Your task to perform on an android device: Add jbl flip 4 to the cart on ebay.com Image 0: 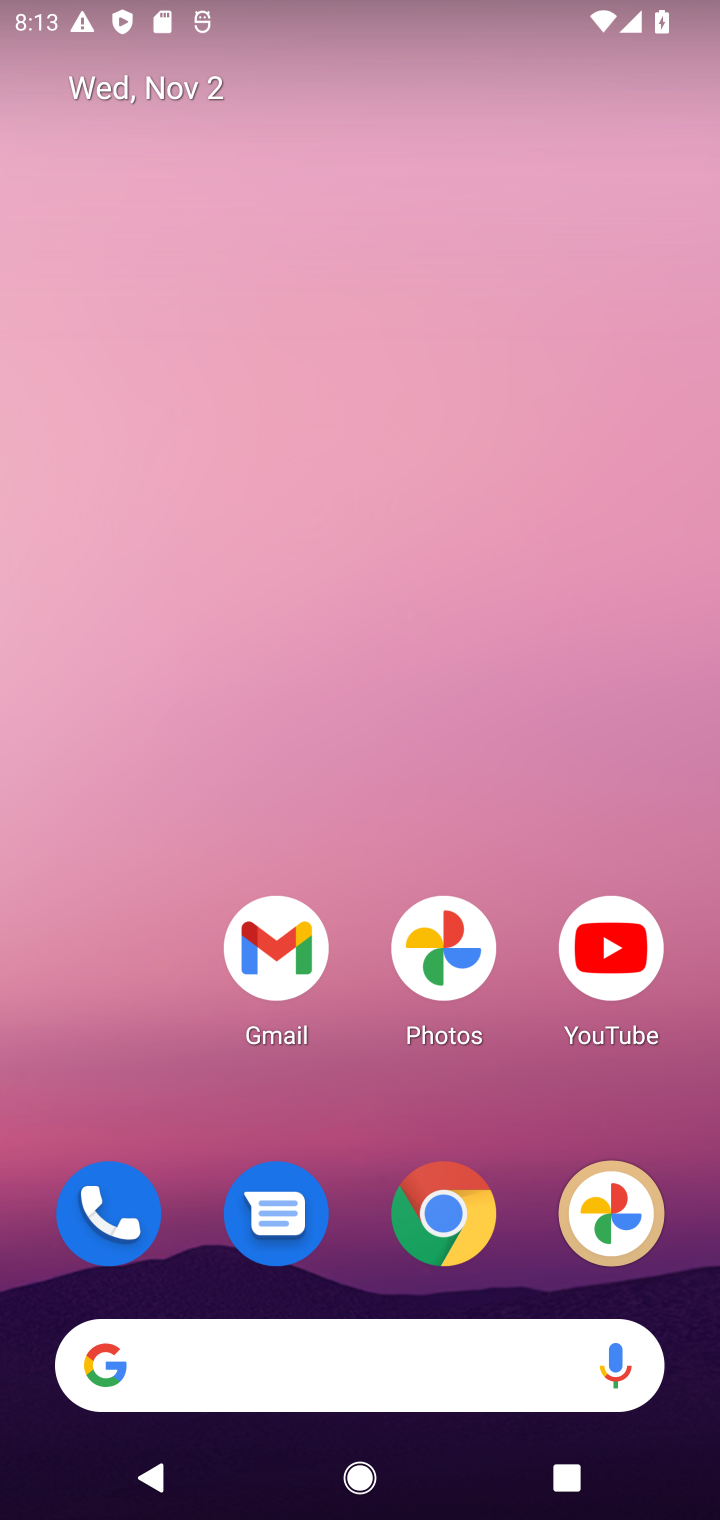
Step 0: click (459, 1227)
Your task to perform on an android device: Add jbl flip 4 to the cart on ebay.com Image 1: 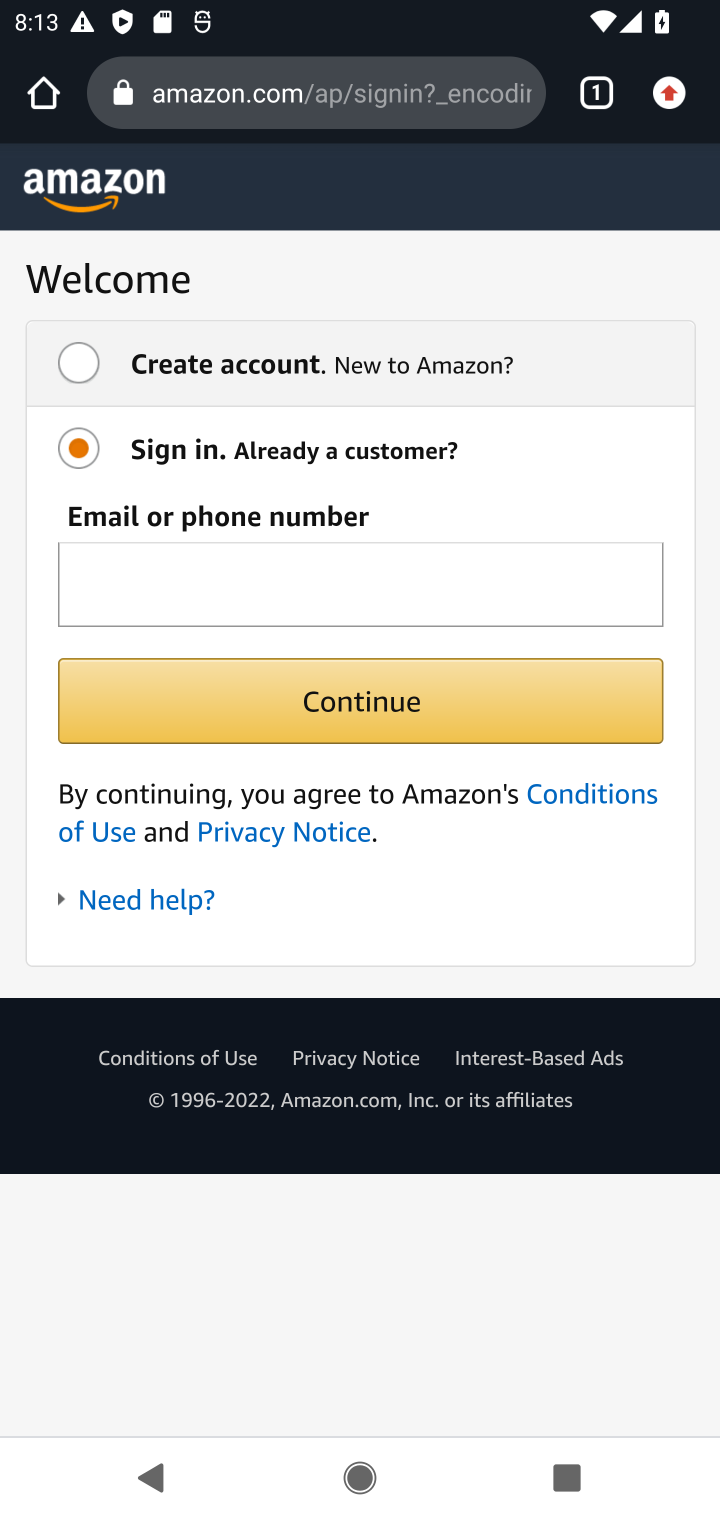
Step 1: click (255, 113)
Your task to perform on an android device: Add jbl flip 4 to the cart on ebay.com Image 2: 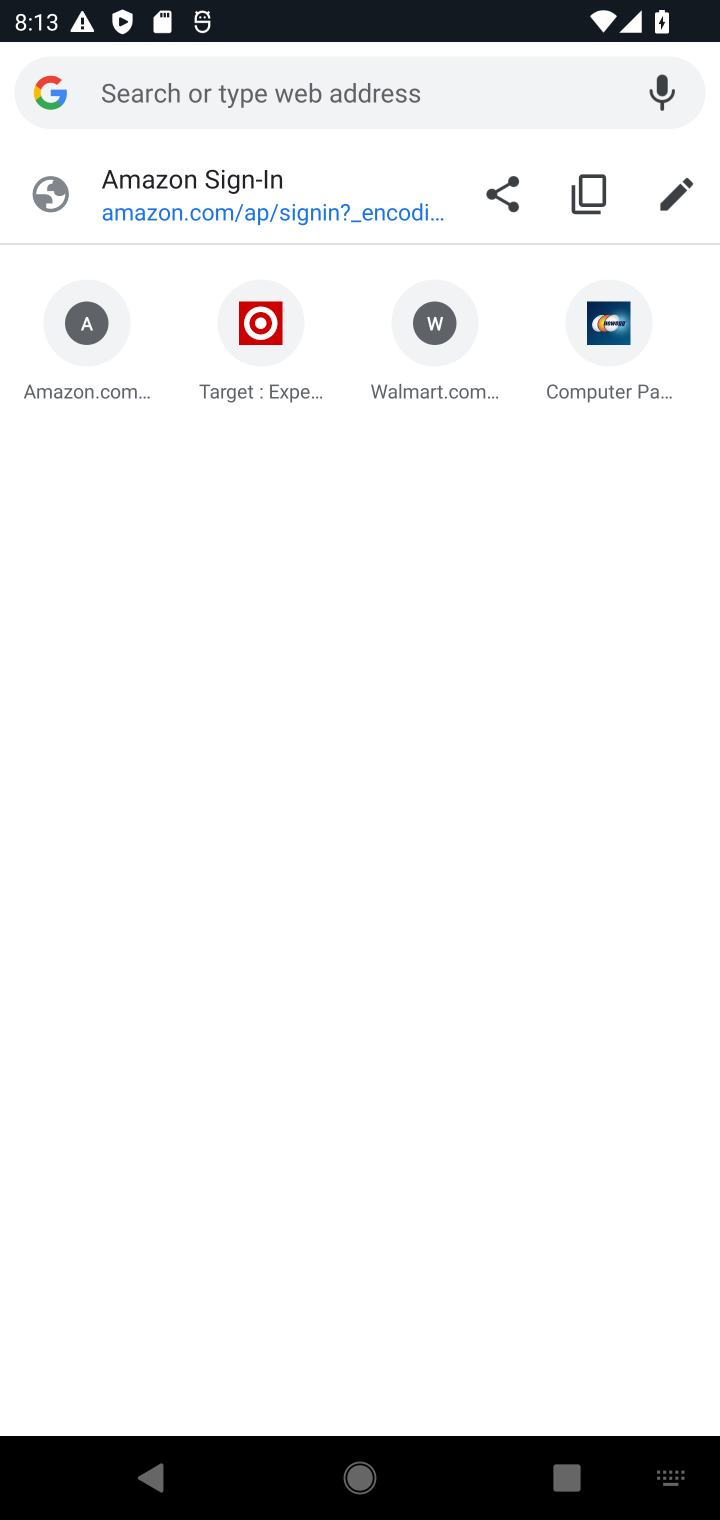
Step 2: type "ebay.com"
Your task to perform on an android device: Add jbl flip 4 to the cart on ebay.com Image 3: 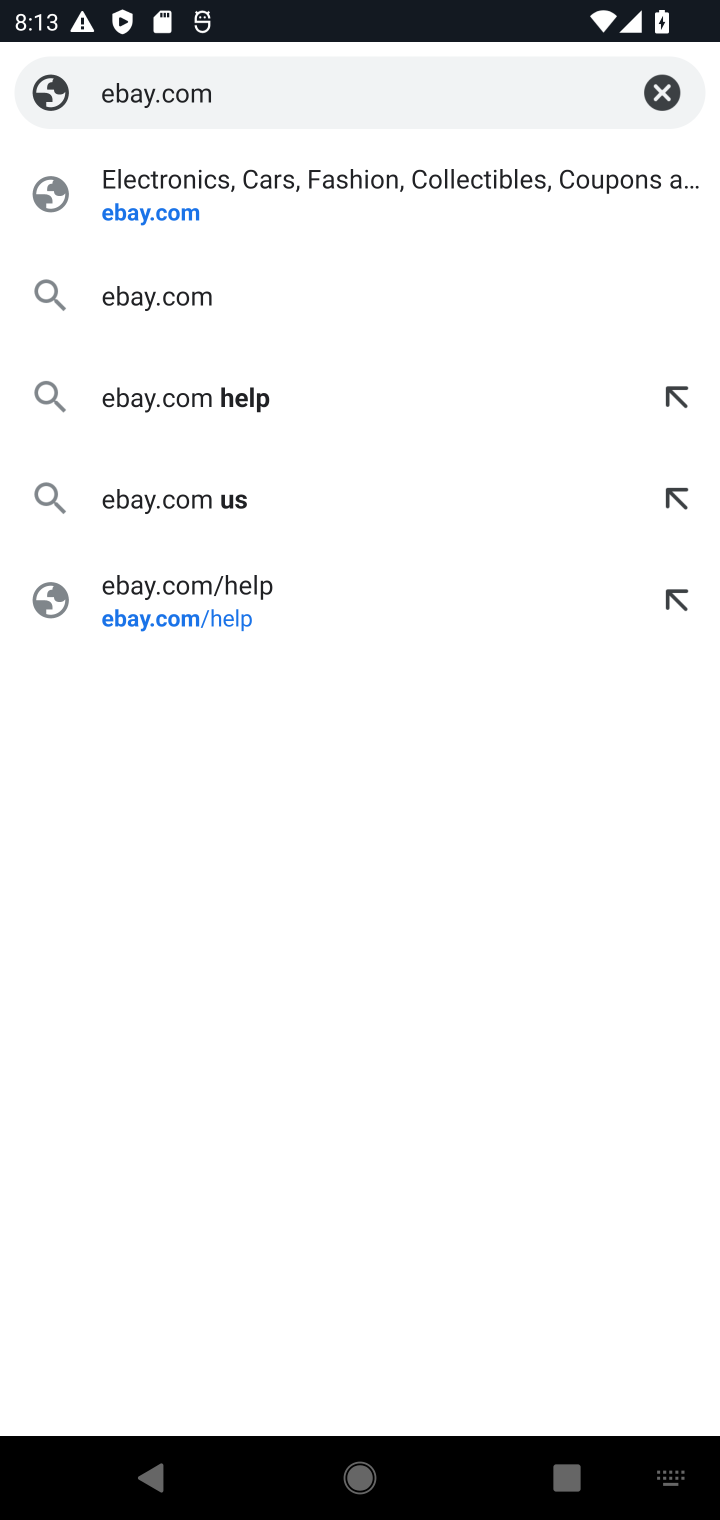
Step 3: click (129, 216)
Your task to perform on an android device: Add jbl flip 4 to the cart on ebay.com Image 4: 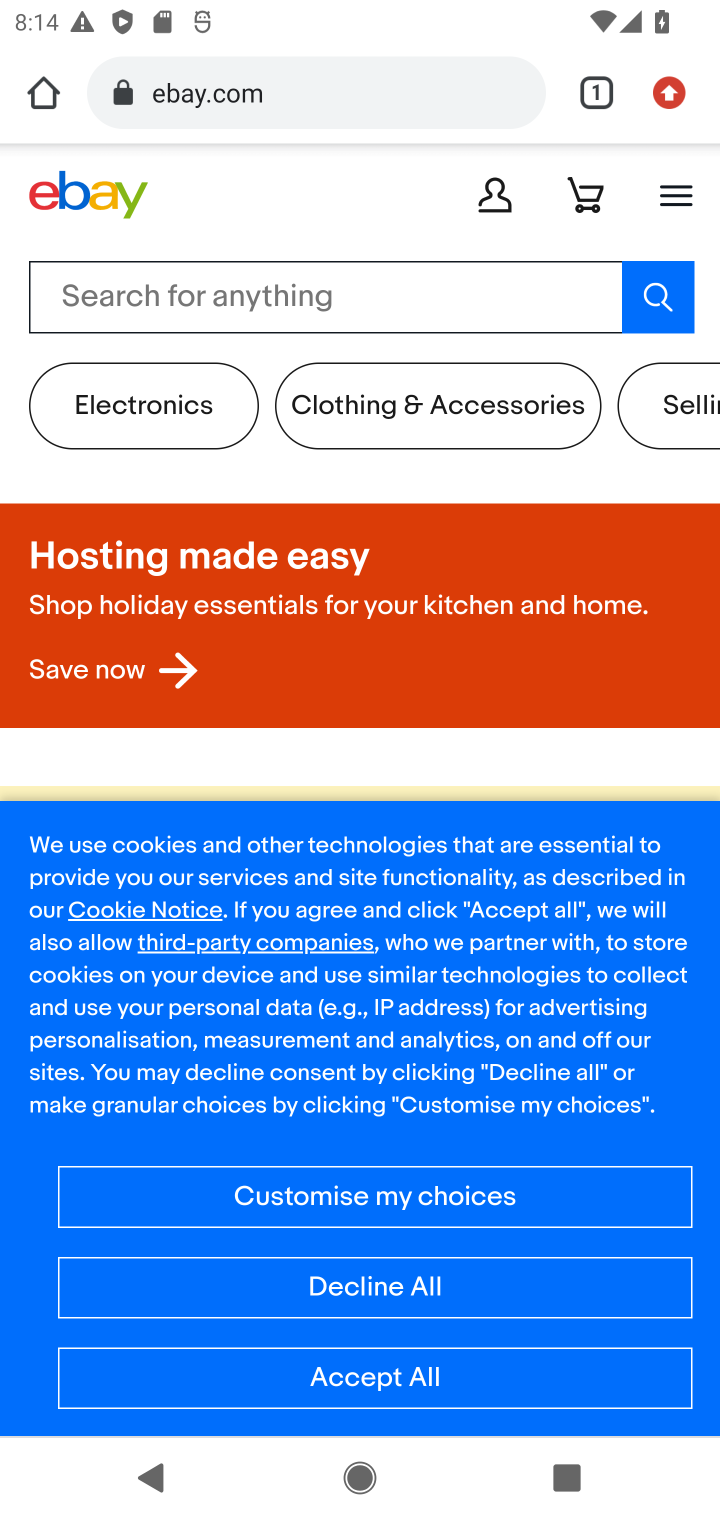
Step 4: click (188, 293)
Your task to perform on an android device: Add jbl flip 4 to the cart on ebay.com Image 5: 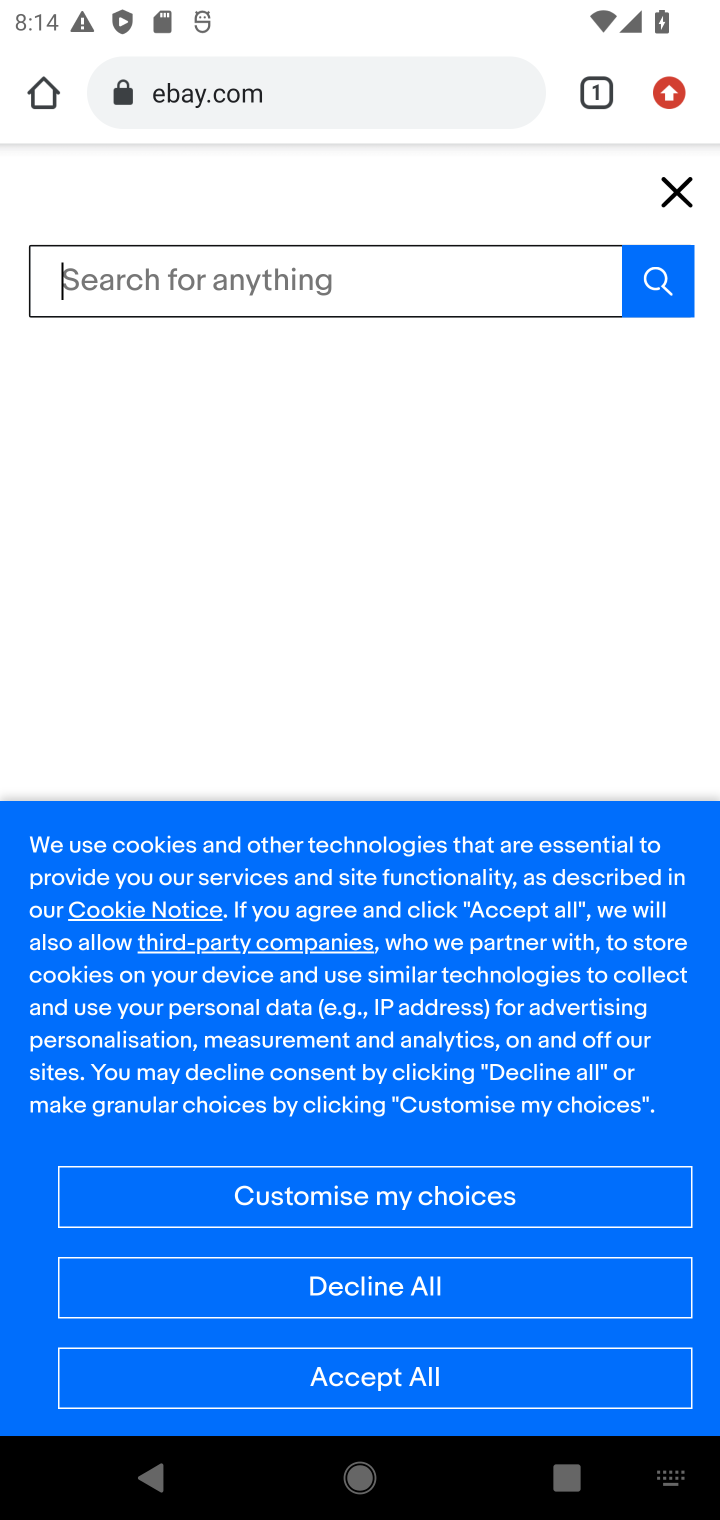
Step 5: type "jbl flip 4"
Your task to perform on an android device: Add jbl flip 4 to the cart on ebay.com Image 6: 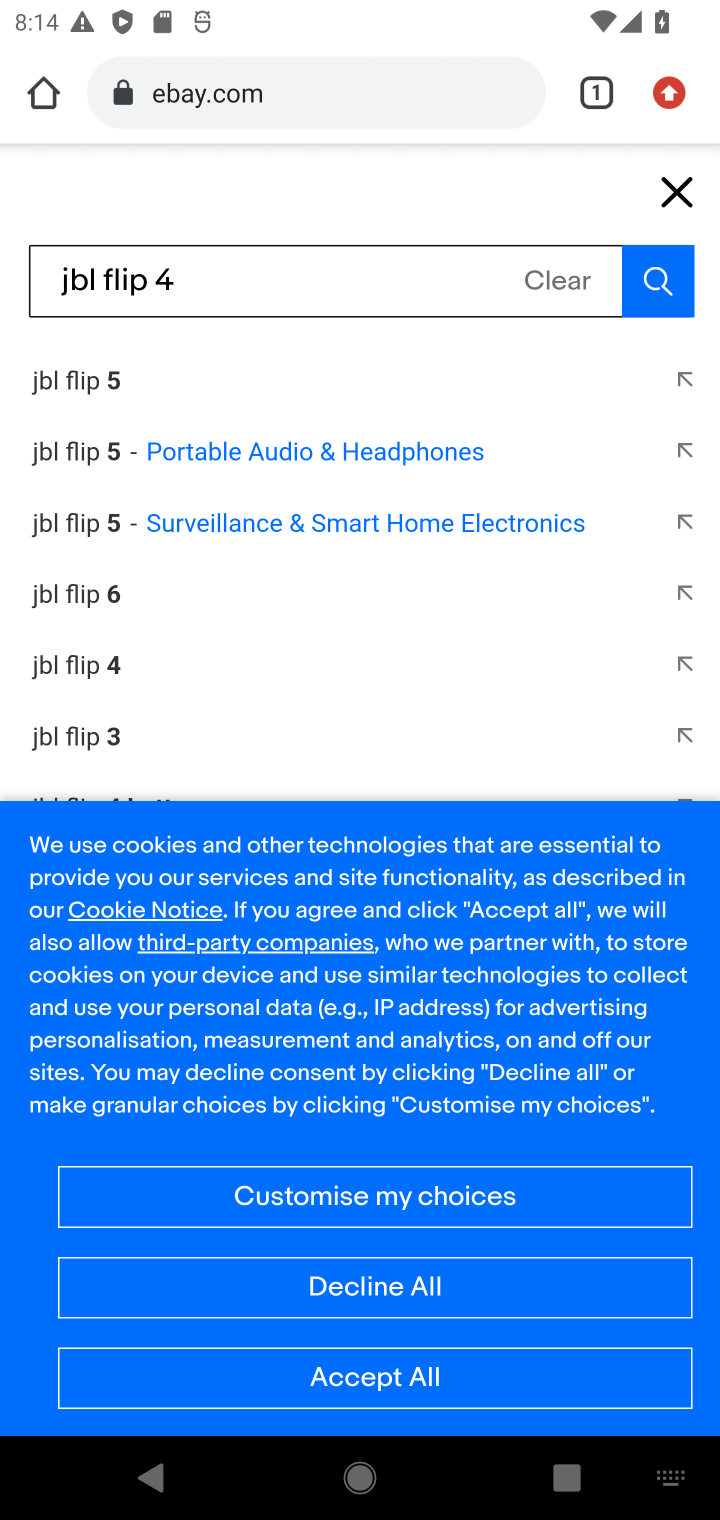
Step 6: click (56, 662)
Your task to perform on an android device: Add jbl flip 4 to the cart on ebay.com Image 7: 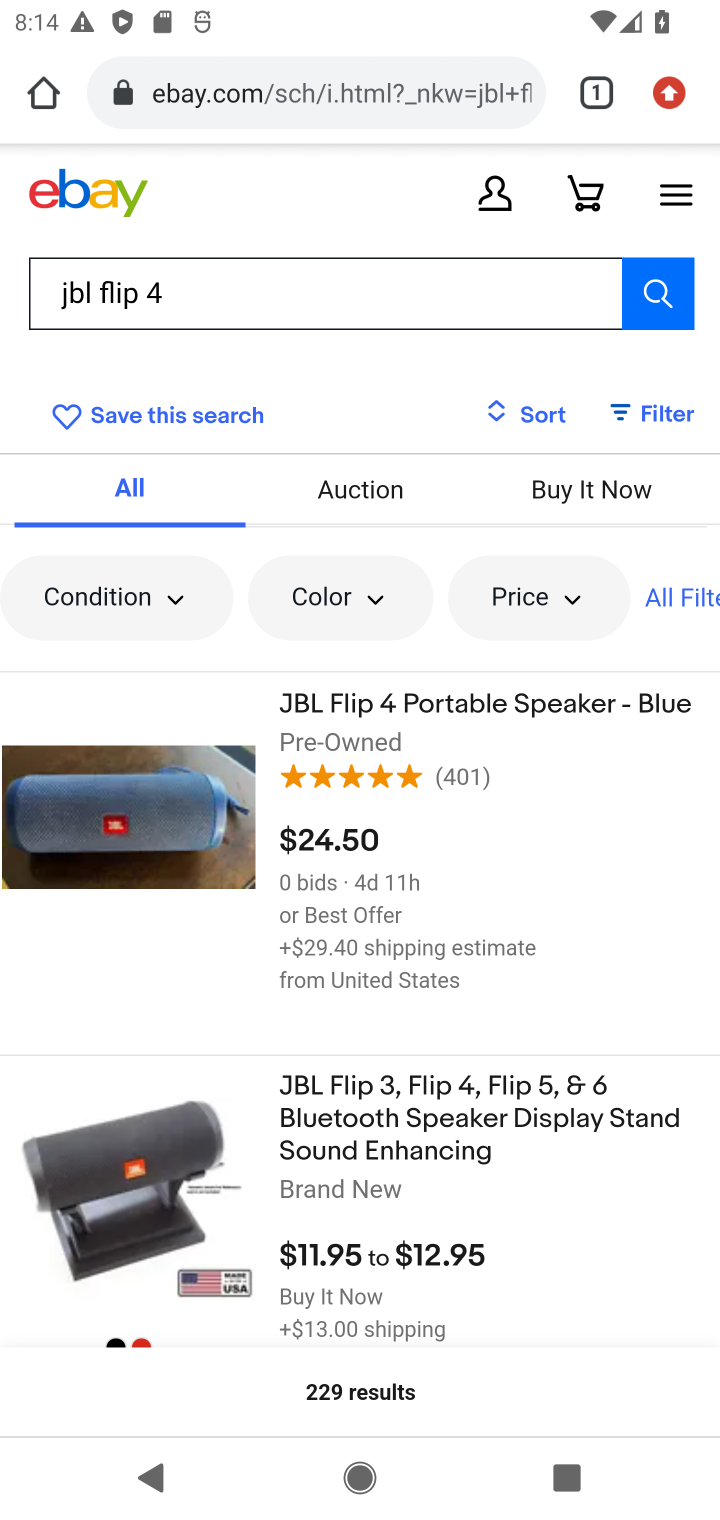
Step 7: click (214, 852)
Your task to perform on an android device: Add jbl flip 4 to the cart on ebay.com Image 8: 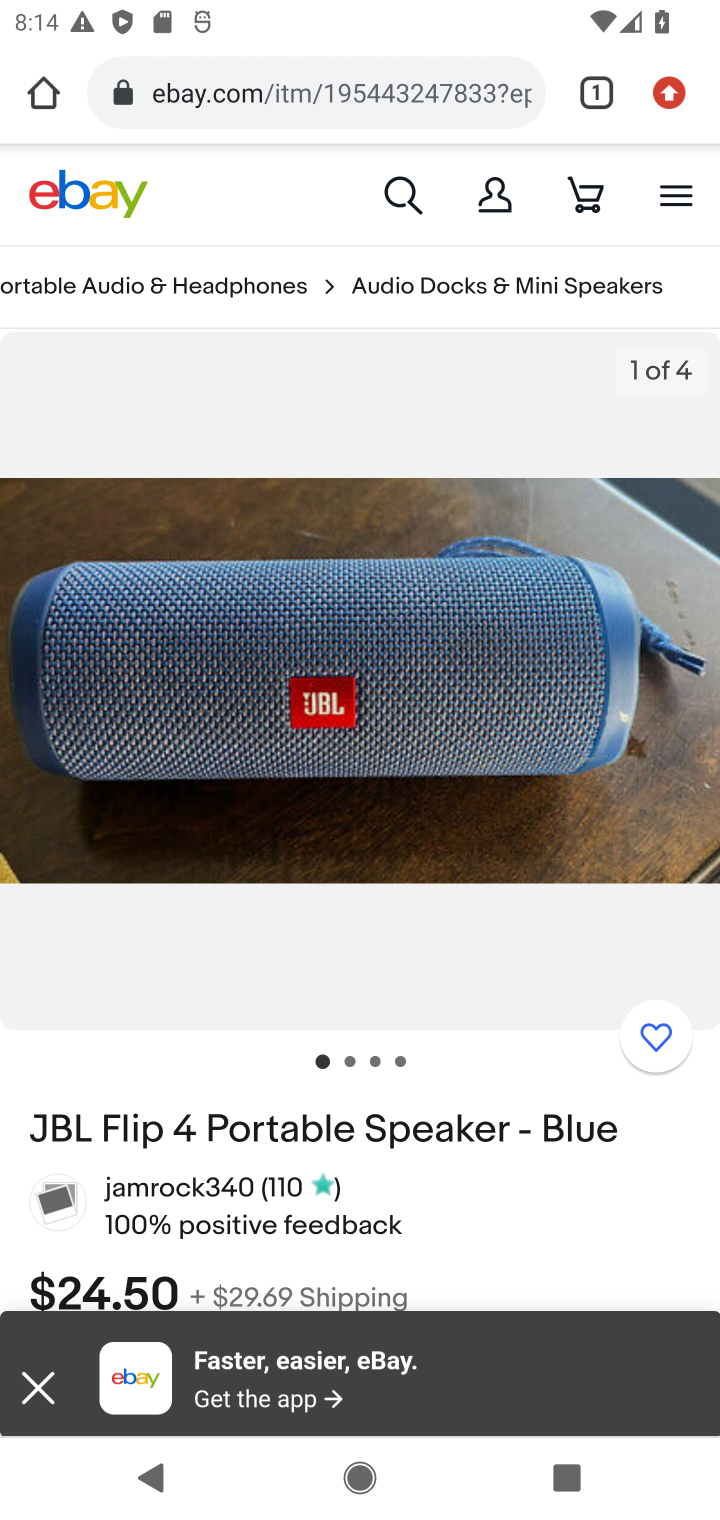
Step 8: drag from (425, 900) to (441, 405)
Your task to perform on an android device: Add jbl flip 4 to the cart on ebay.com Image 9: 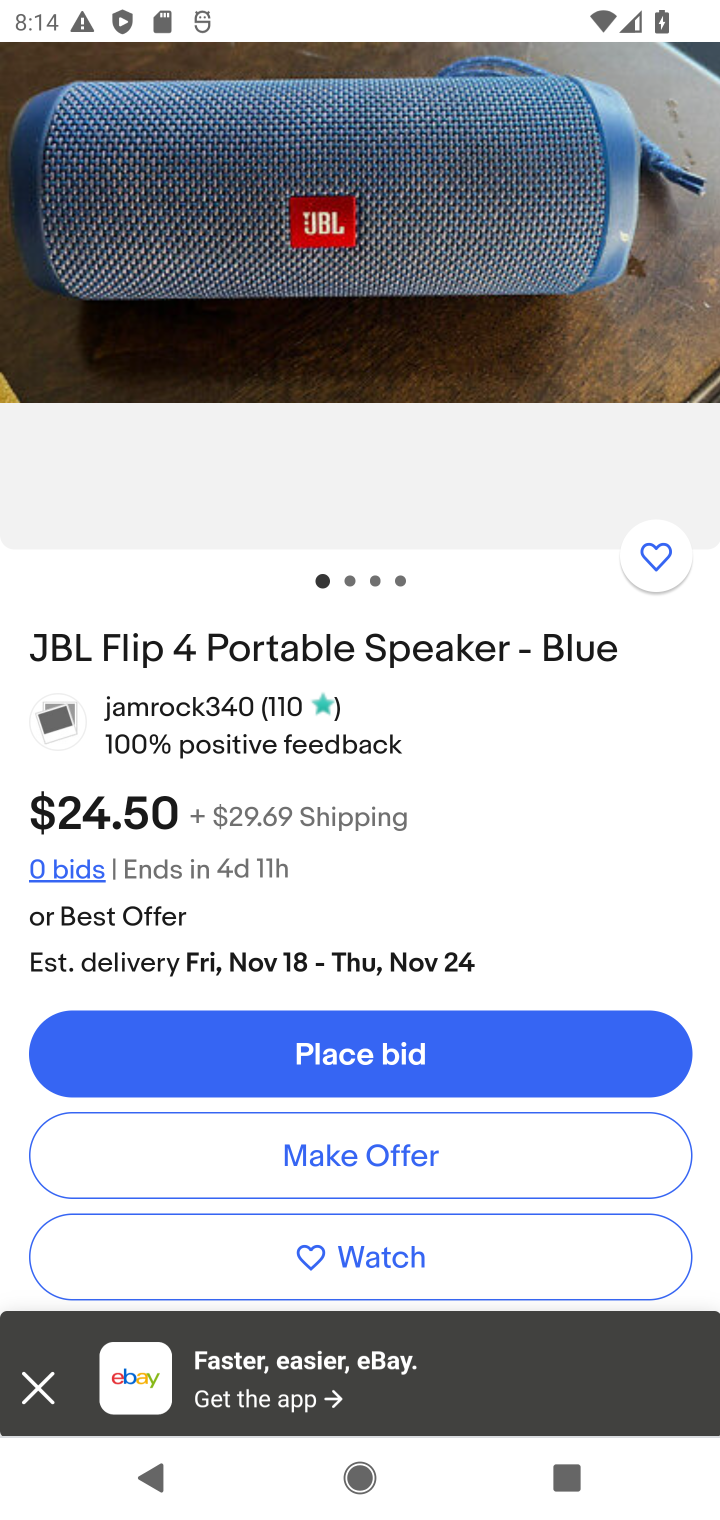
Step 9: drag from (439, 894) to (449, 722)
Your task to perform on an android device: Add jbl flip 4 to the cart on ebay.com Image 10: 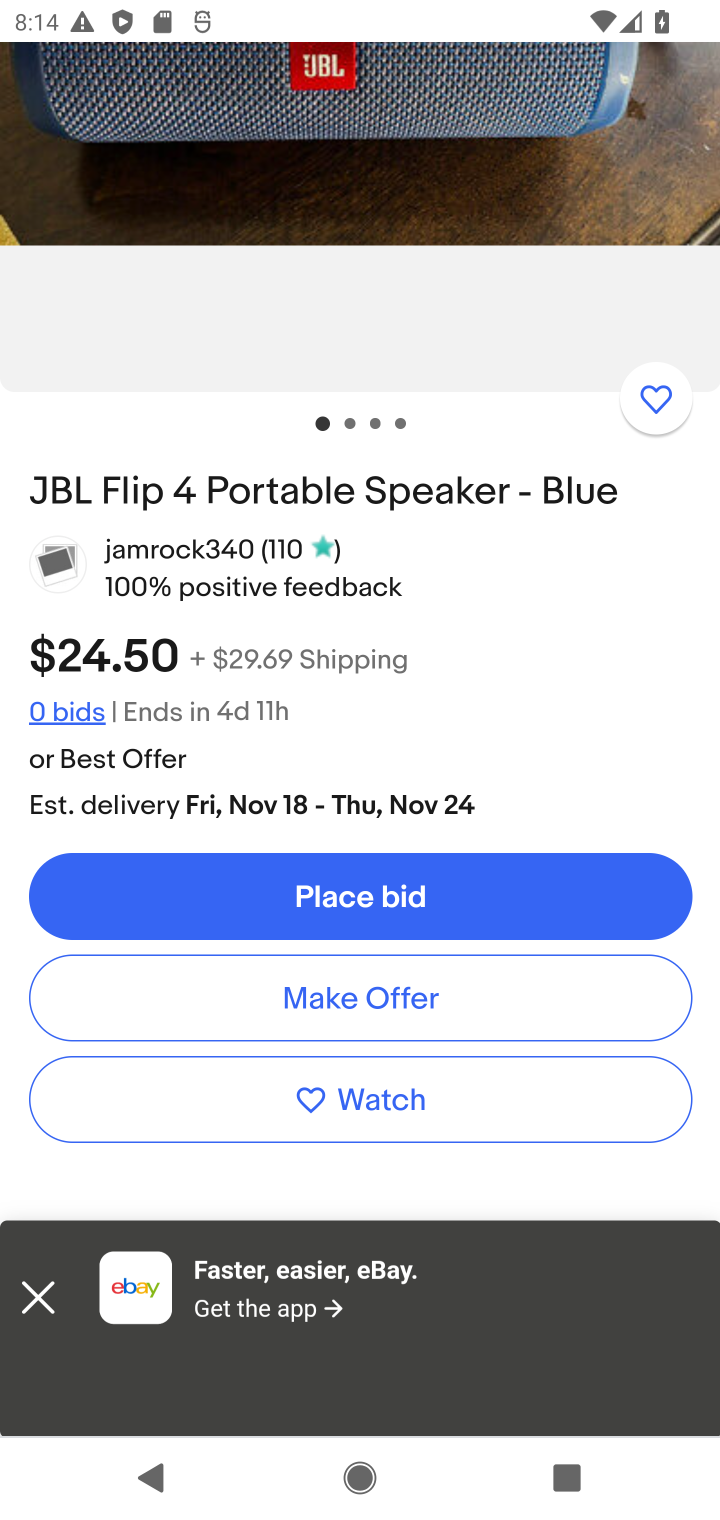
Step 10: click (43, 1309)
Your task to perform on an android device: Add jbl flip 4 to the cart on ebay.com Image 11: 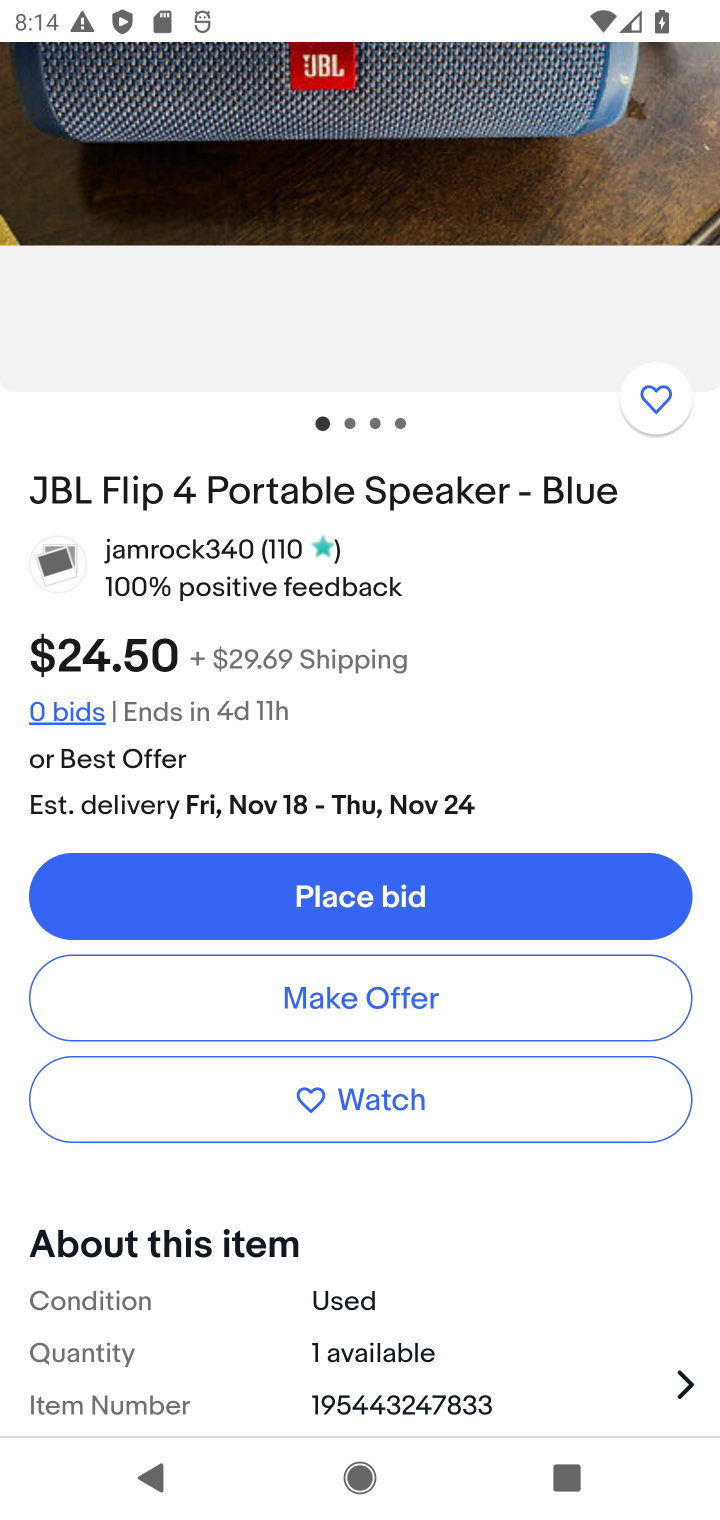
Step 11: drag from (512, 1140) to (514, 702)
Your task to perform on an android device: Add jbl flip 4 to the cart on ebay.com Image 12: 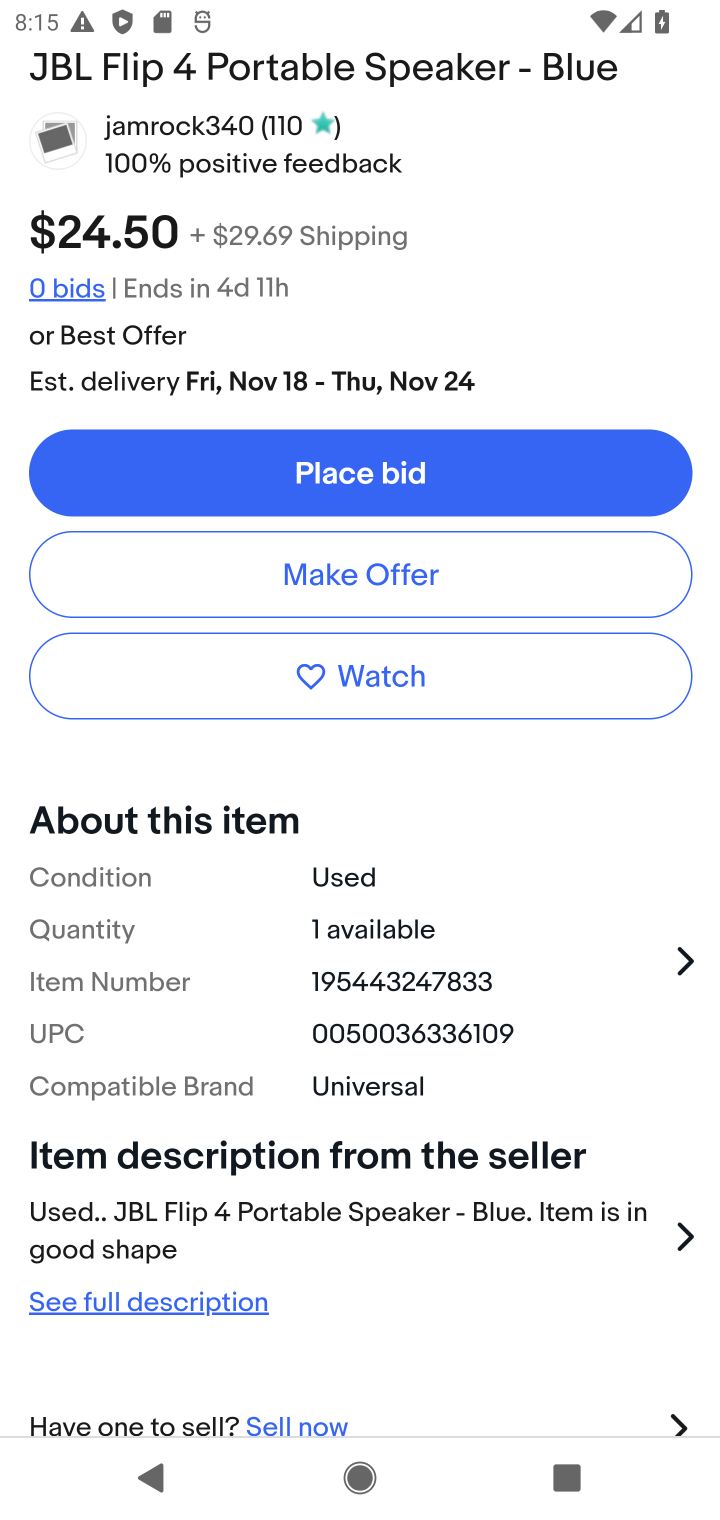
Step 12: drag from (465, 1007) to (480, 652)
Your task to perform on an android device: Add jbl flip 4 to the cart on ebay.com Image 13: 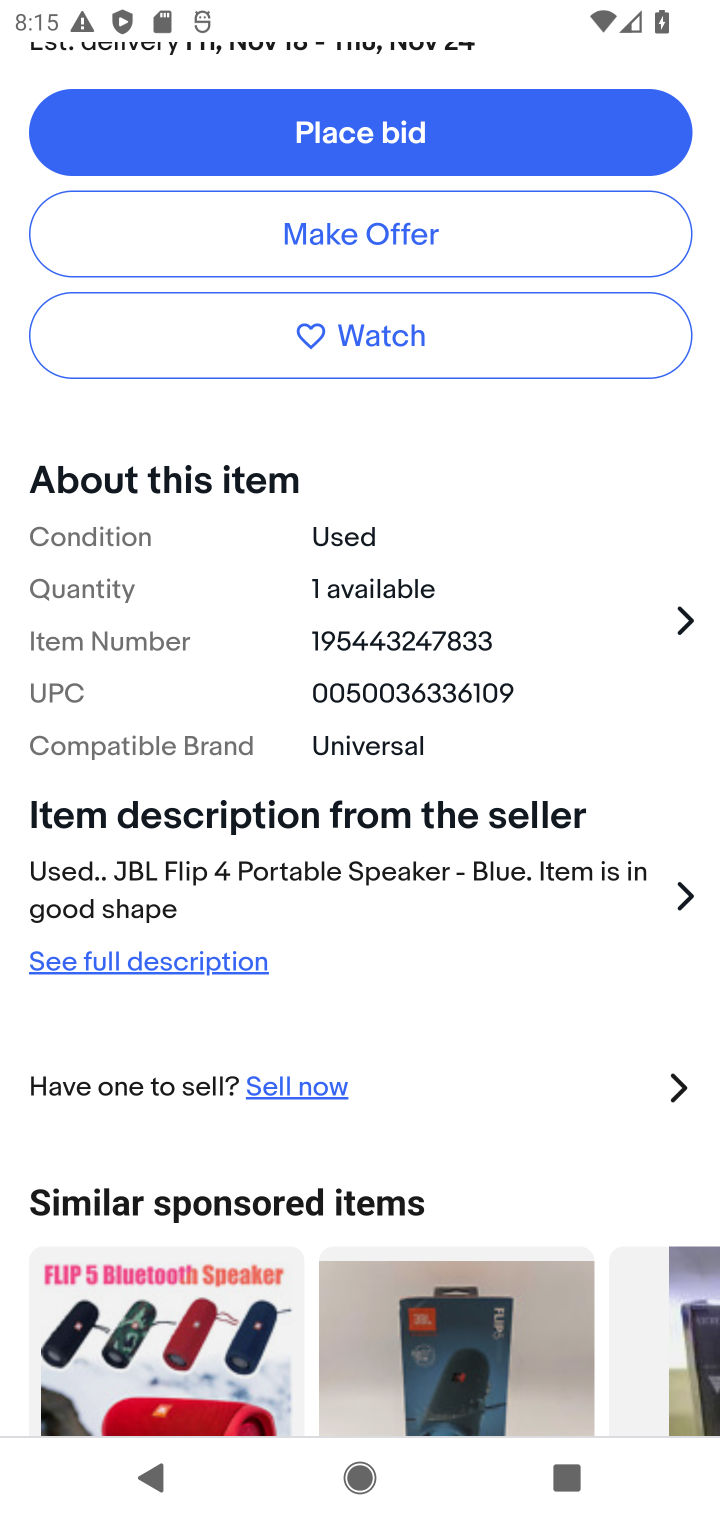
Step 13: drag from (453, 575) to (447, 1444)
Your task to perform on an android device: Add jbl flip 4 to the cart on ebay.com Image 14: 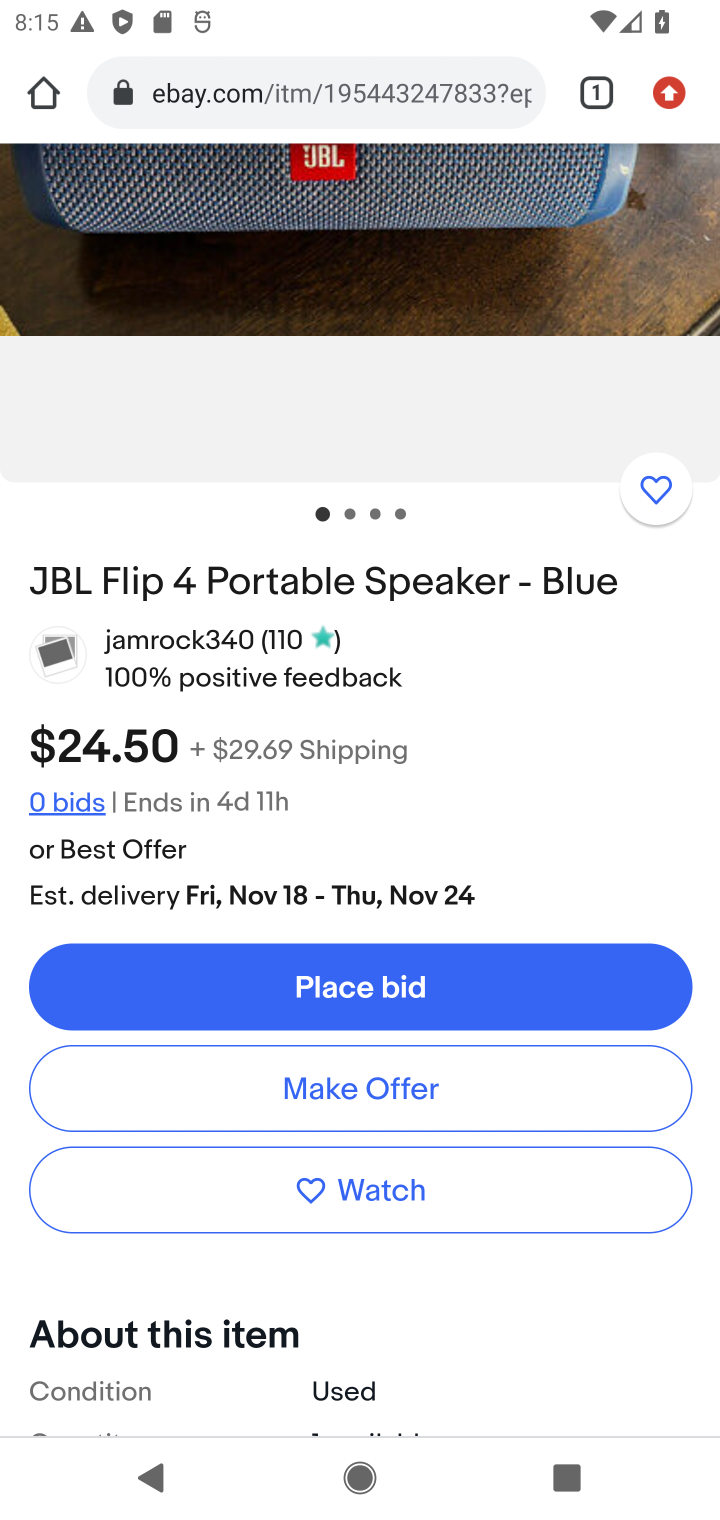
Step 14: drag from (342, 361) to (354, 1274)
Your task to perform on an android device: Add jbl flip 4 to the cart on ebay.com Image 15: 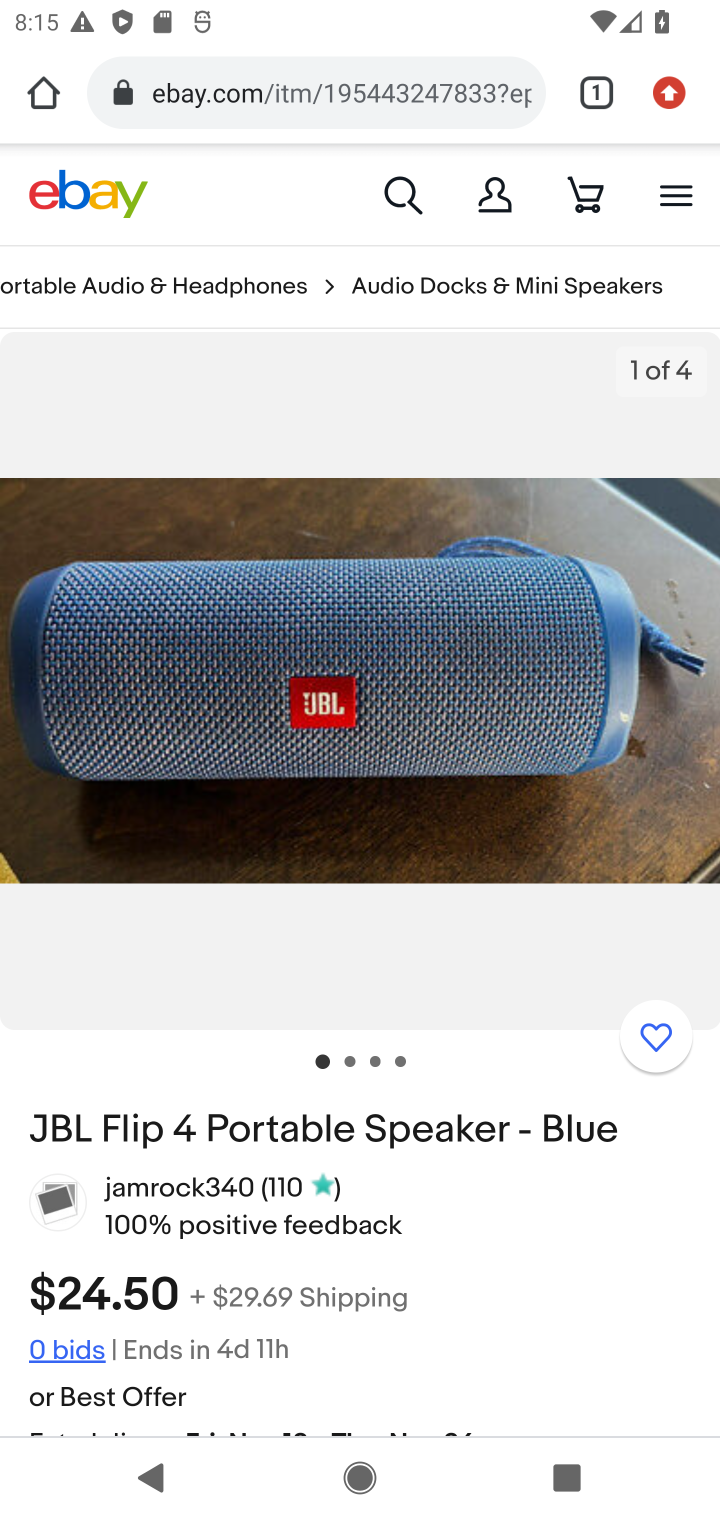
Step 15: drag from (322, 580) to (343, 1150)
Your task to perform on an android device: Add jbl flip 4 to the cart on ebay.com Image 16: 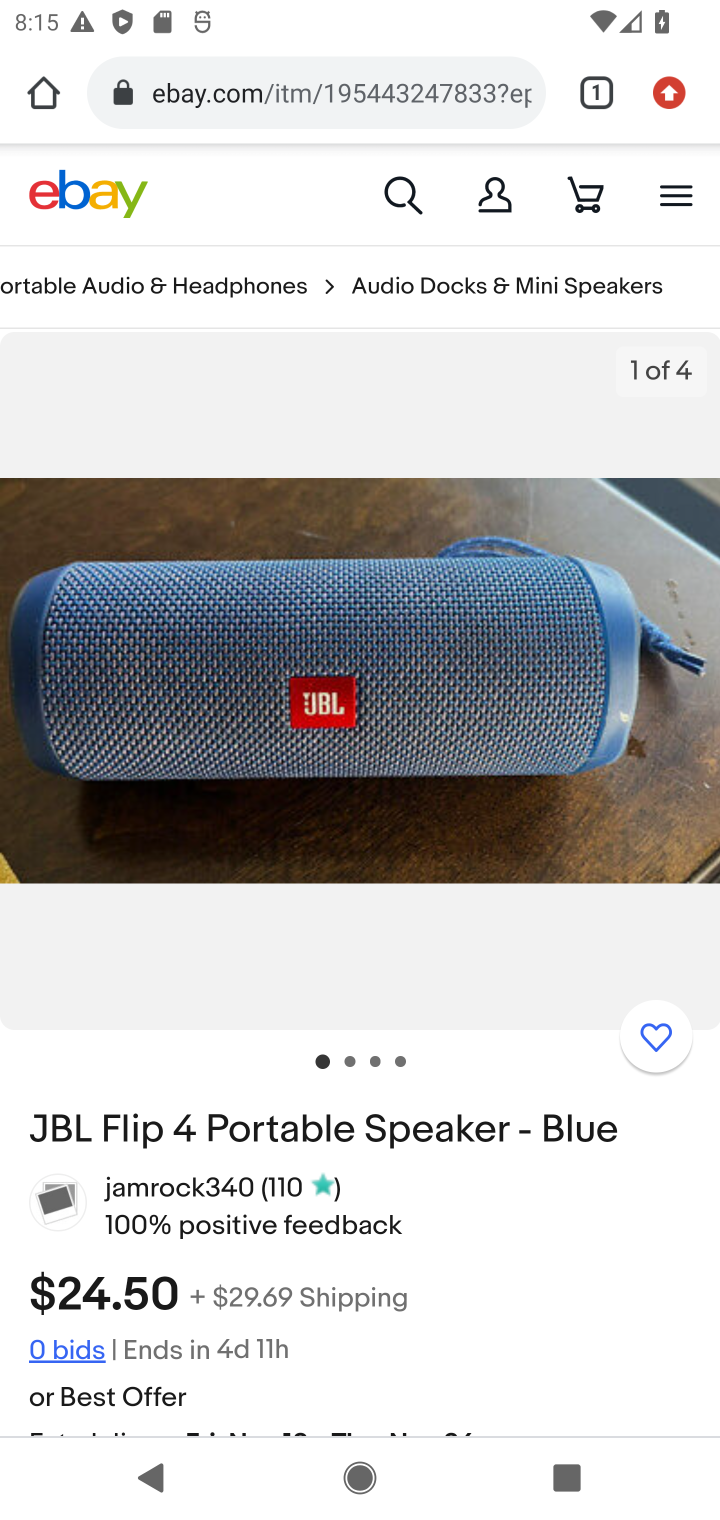
Step 16: press back button
Your task to perform on an android device: Add jbl flip 4 to the cart on ebay.com Image 17: 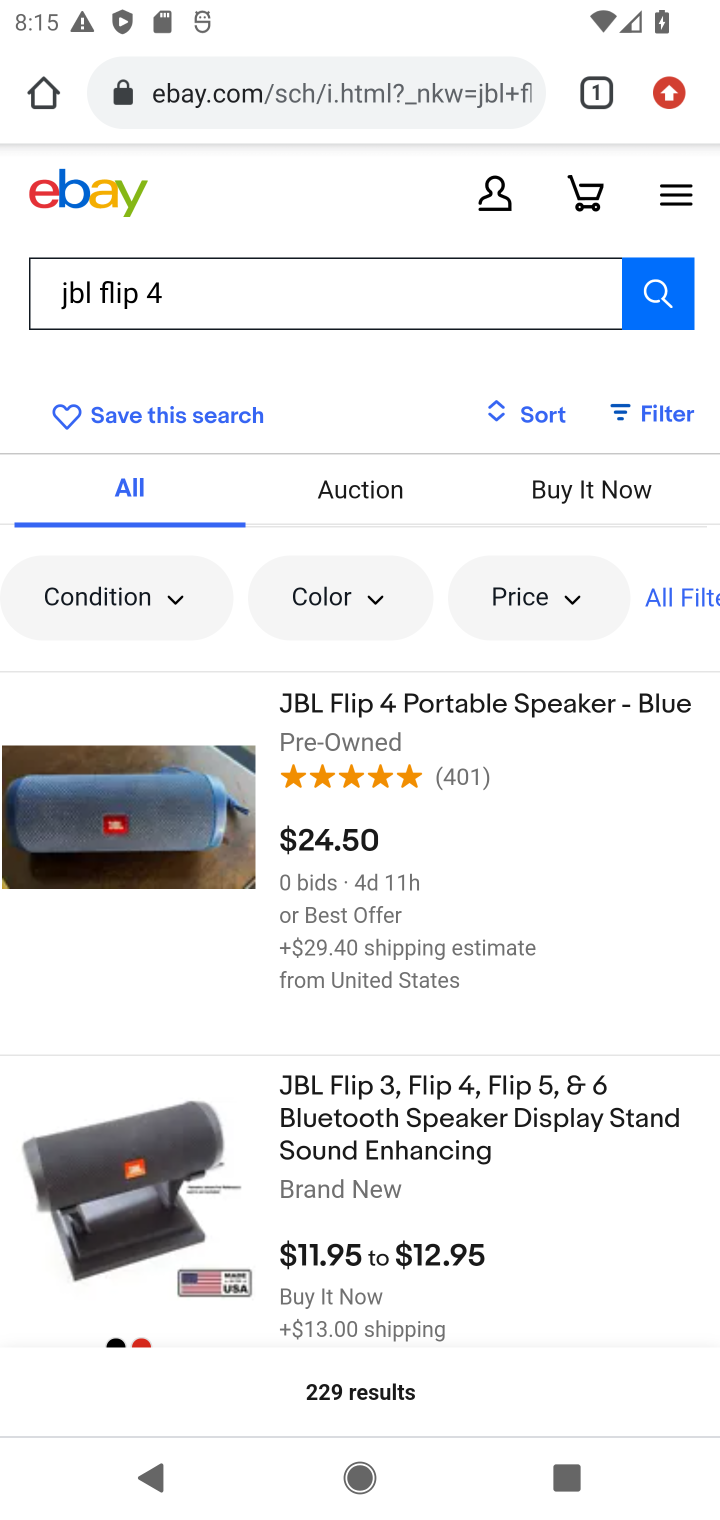
Step 17: drag from (380, 1152) to (461, 605)
Your task to perform on an android device: Add jbl flip 4 to the cart on ebay.com Image 18: 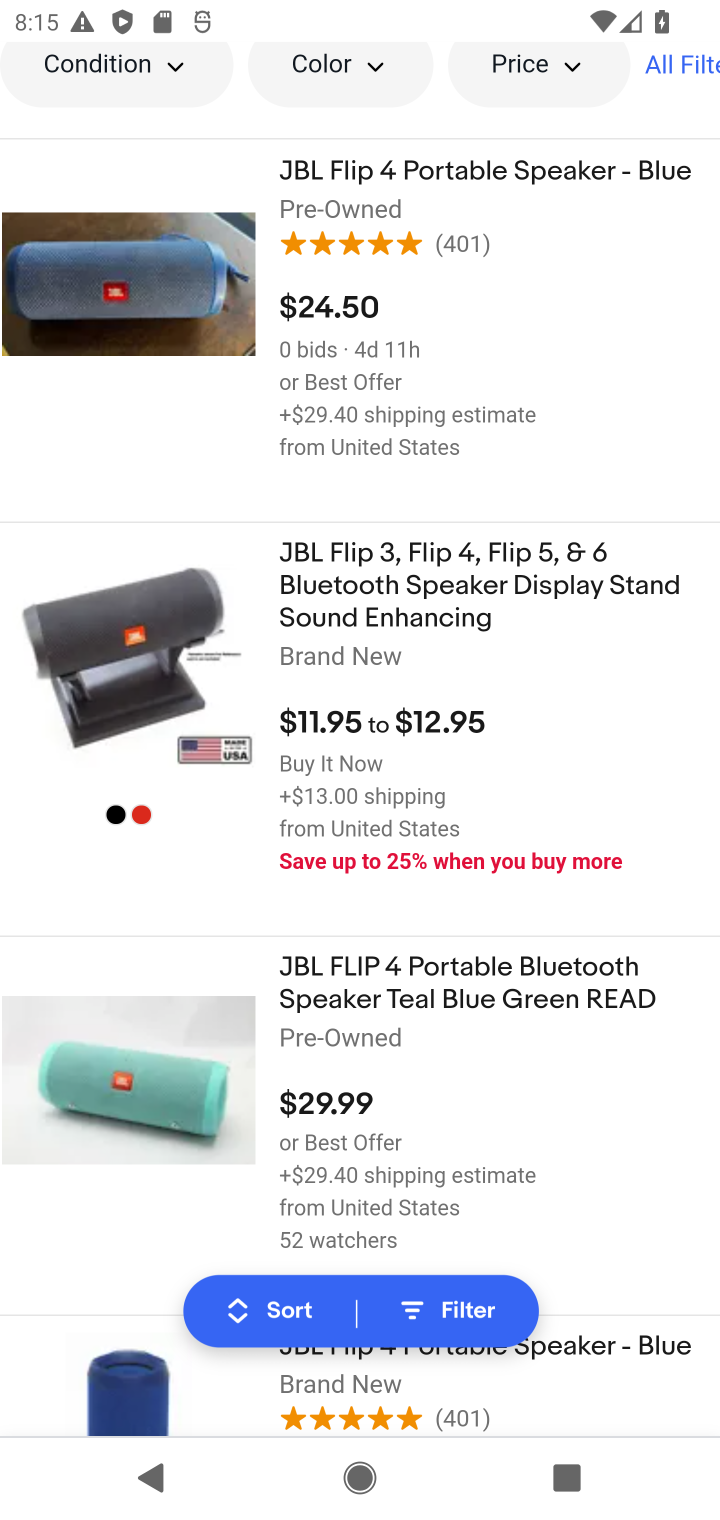
Step 18: click (216, 1088)
Your task to perform on an android device: Add jbl flip 4 to the cart on ebay.com Image 19: 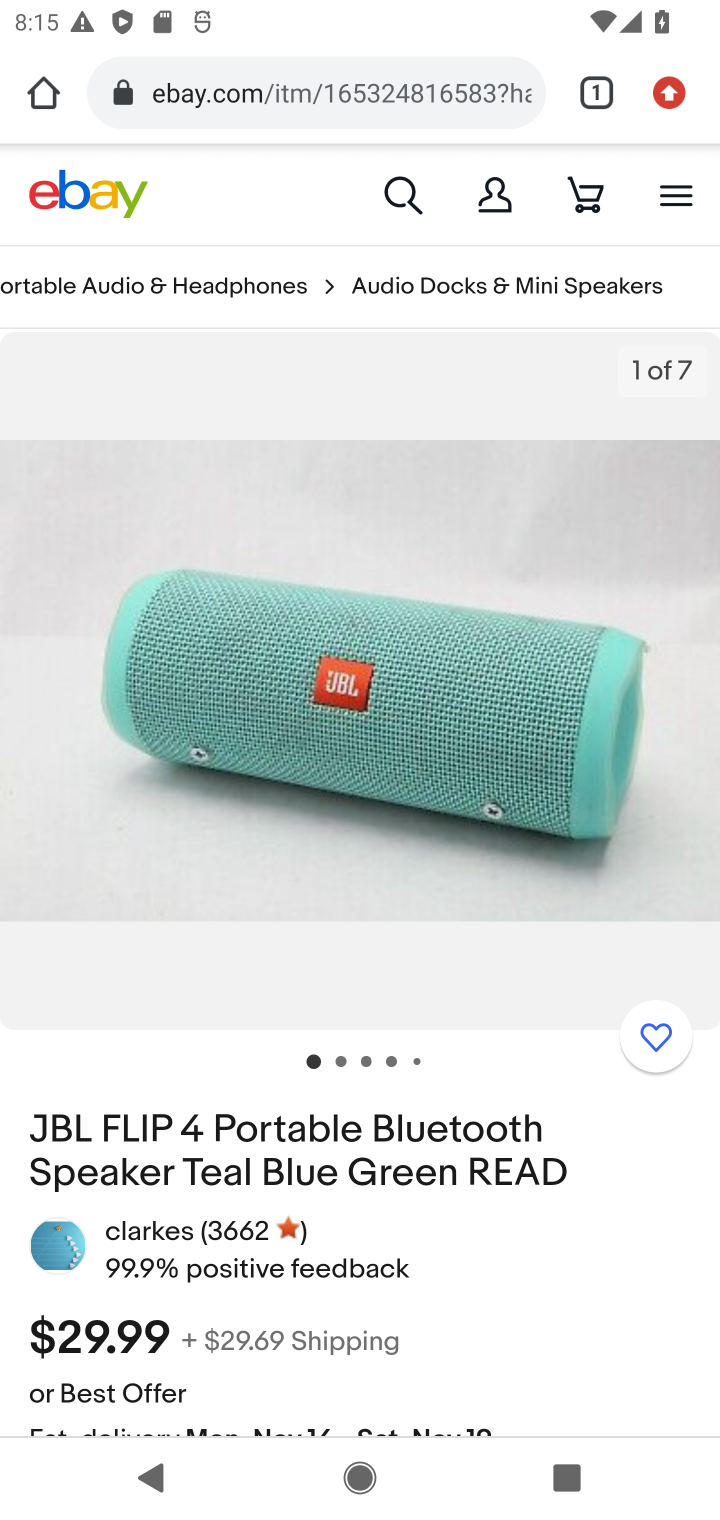
Step 19: drag from (376, 1227) to (474, 628)
Your task to perform on an android device: Add jbl flip 4 to the cart on ebay.com Image 20: 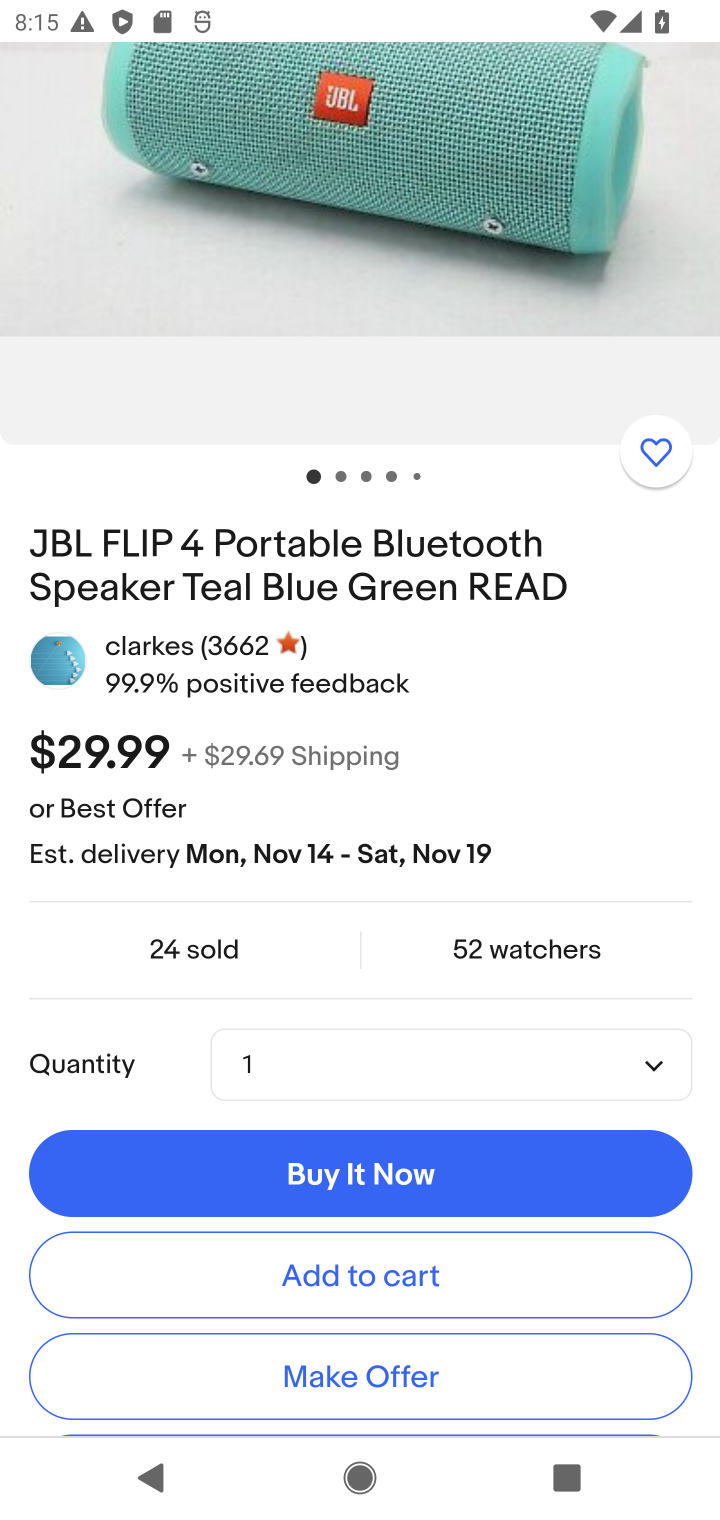
Step 20: click (360, 1263)
Your task to perform on an android device: Add jbl flip 4 to the cart on ebay.com Image 21: 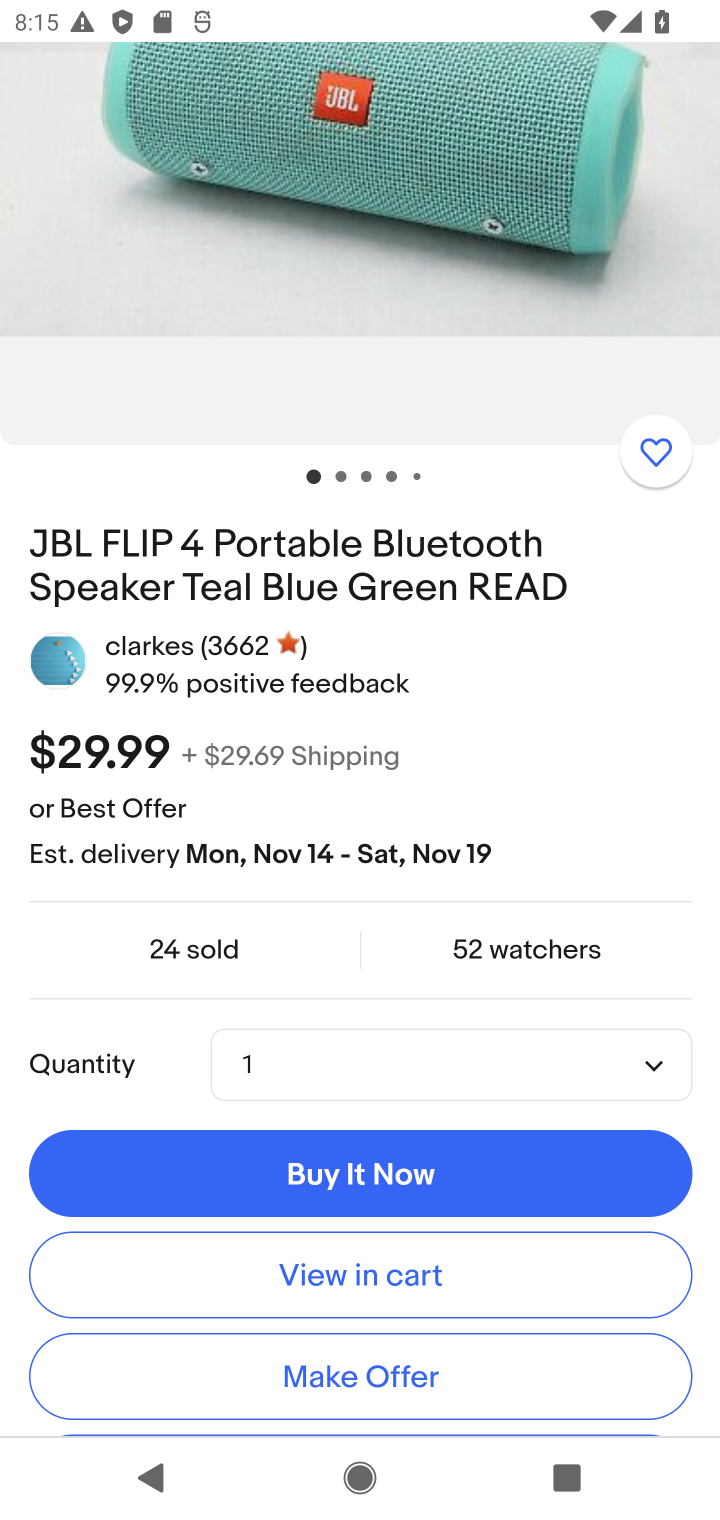
Step 21: task complete